Your task to perform on an android device: change the clock display to analog Image 0: 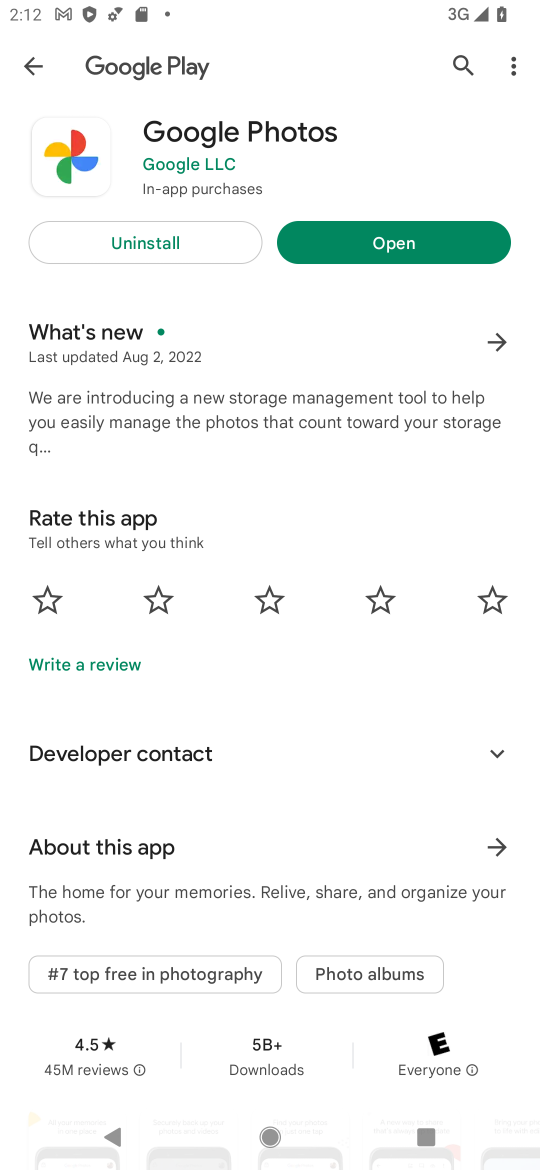
Step 0: press home button
Your task to perform on an android device: change the clock display to analog Image 1: 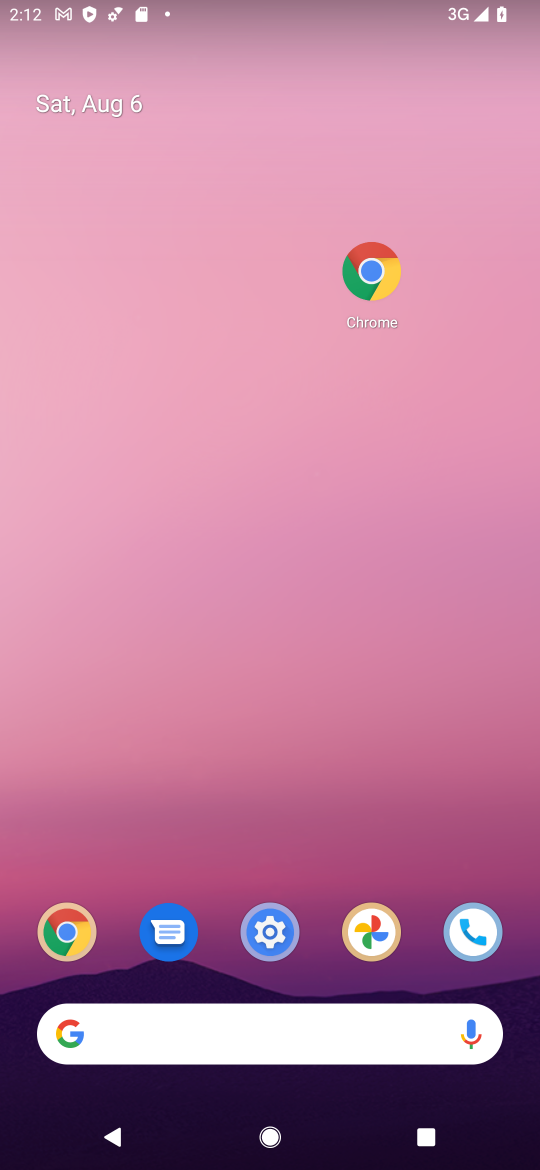
Step 1: drag from (314, 813) to (290, 106)
Your task to perform on an android device: change the clock display to analog Image 2: 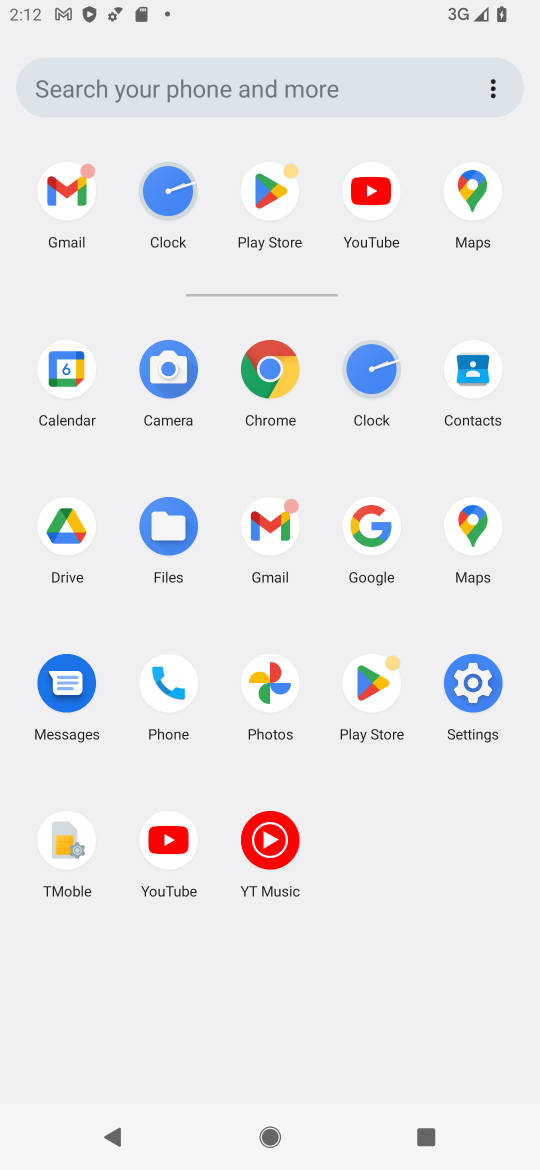
Step 2: click (365, 359)
Your task to perform on an android device: change the clock display to analog Image 3: 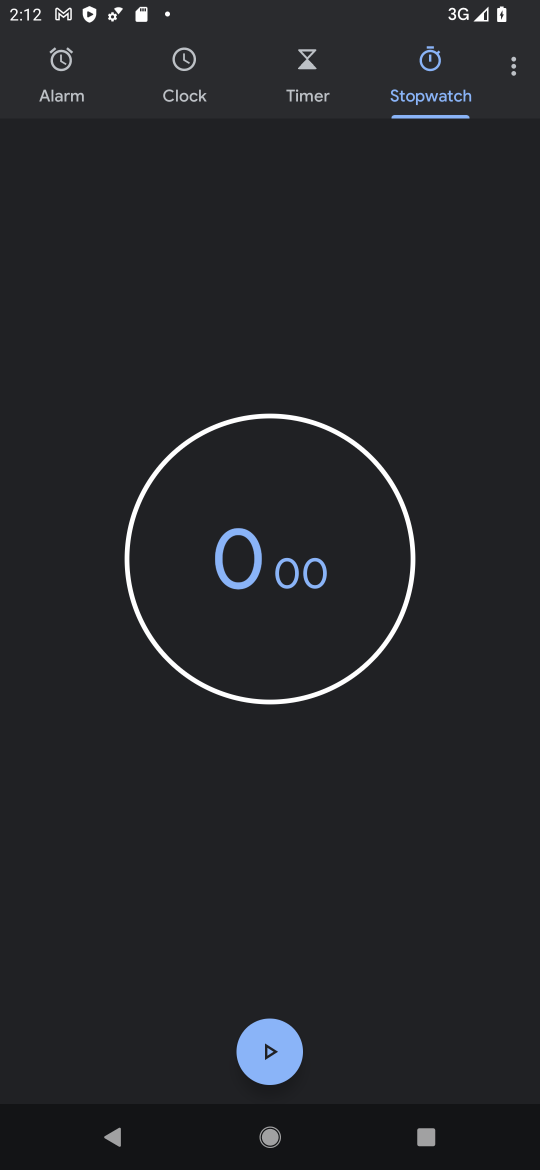
Step 3: click (519, 73)
Your task to perform on an android device: change the clock display to analog Image 4: 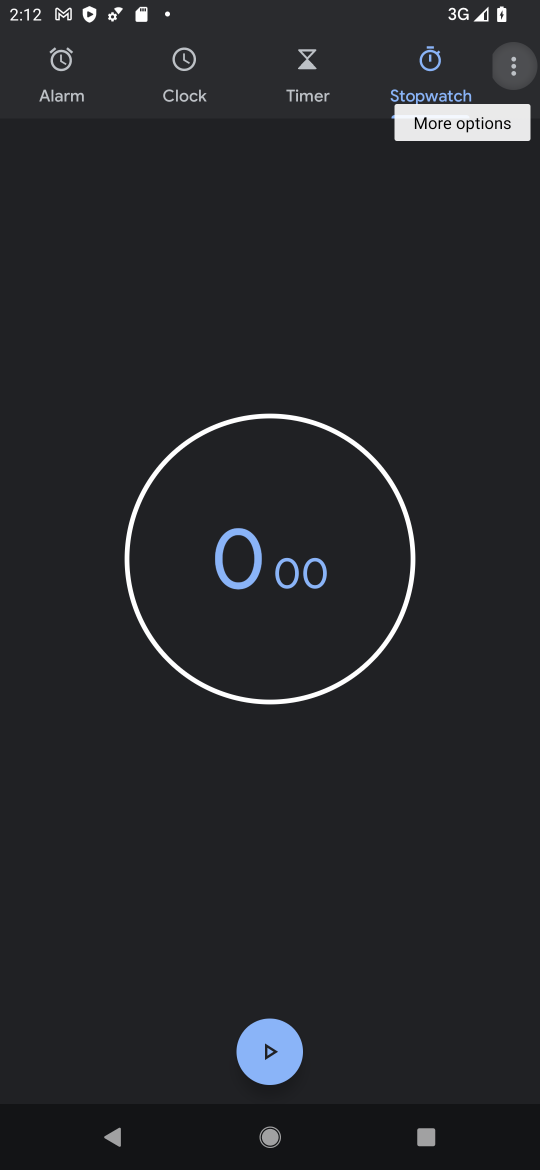
Step 4: click (519, 73)
Your task to perform on an android device: change the clock display to analog Image 5: 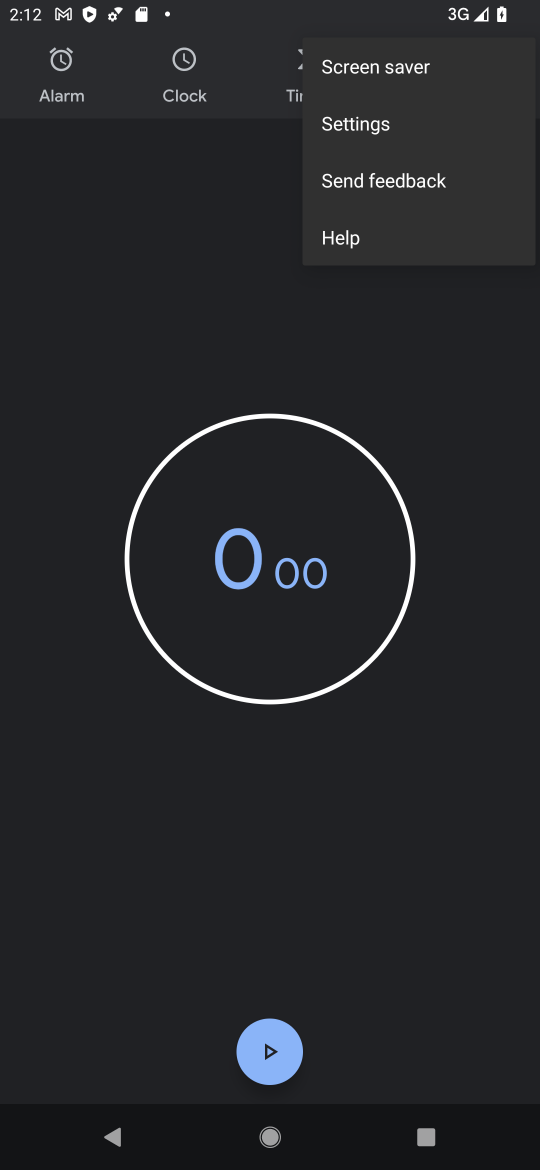
Step 5: click (341, 126)
Your task to perform on an android device: change the clock display to analog Image 6: 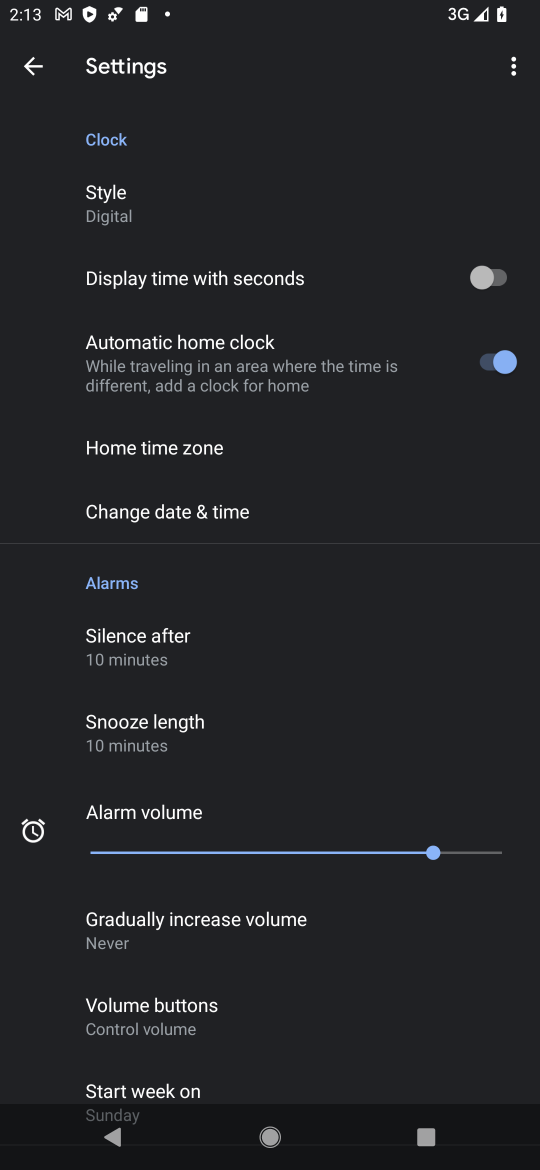
Step 6: click (123, 201)
Your task to perform on an android device: change the clock display to analog Image 7: 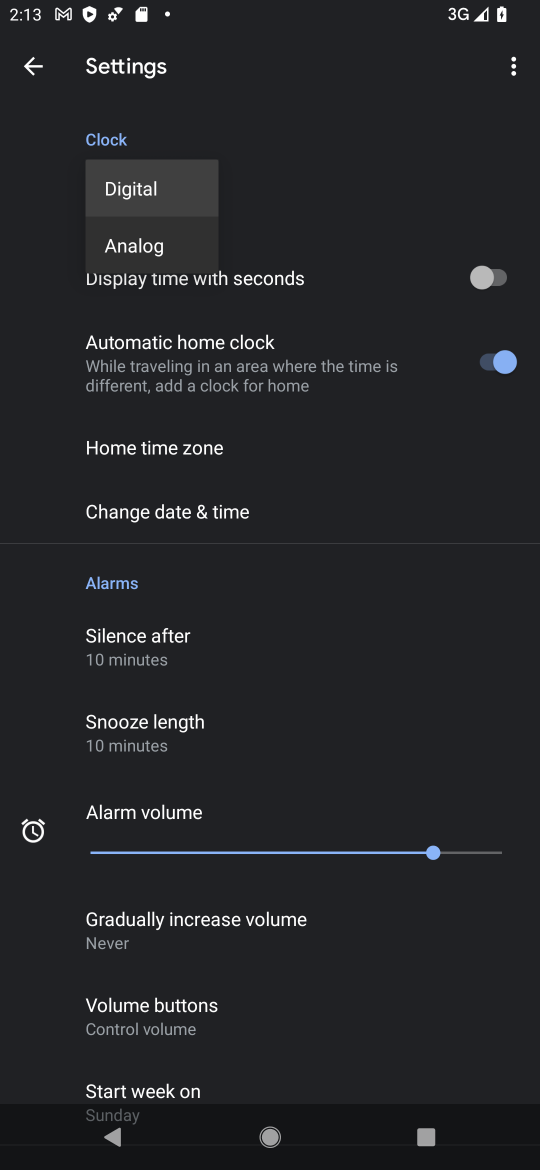
Step 7: click (125, 256)
Your task to perform on an android device: change the clock display to analog Image 8: 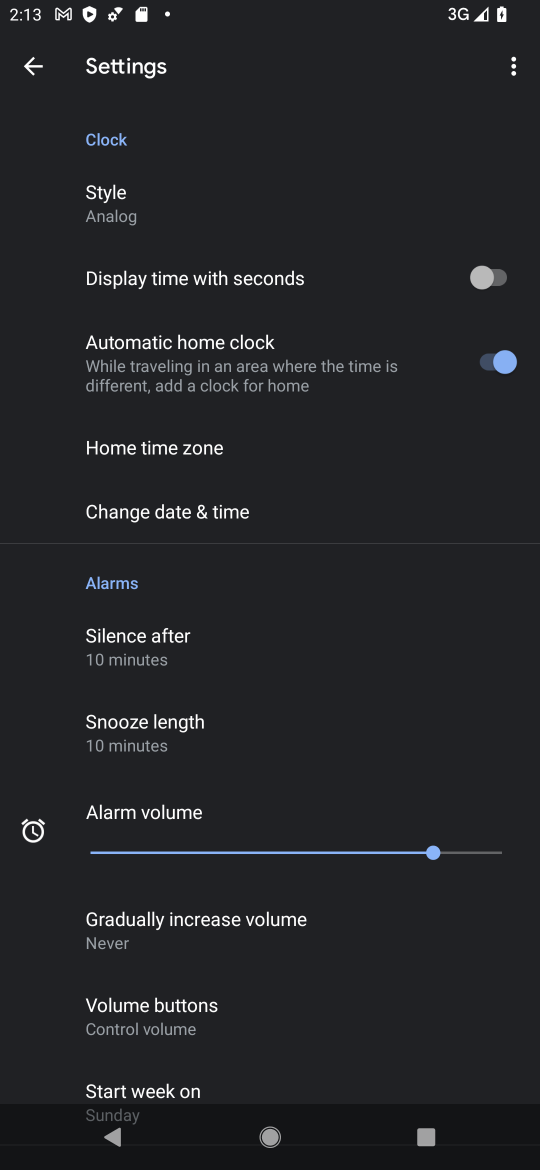
Step 8: task complete